Your task to perform on an android device: allow cookies in the chrome app Image 0: 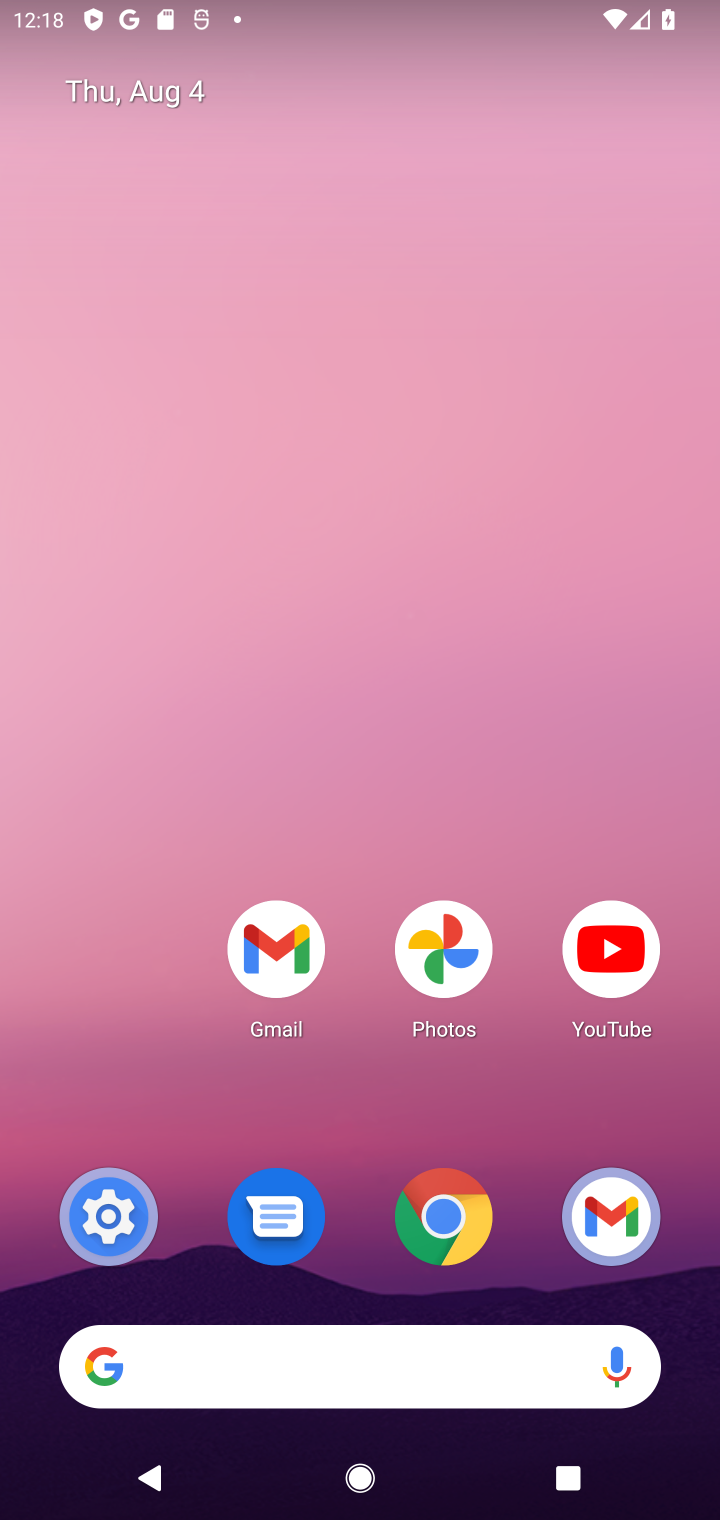
Step 0: drag from (81, 584) to (85, 345)
Your task to perform on an android device: allow cookies in the chrome app Image 1: 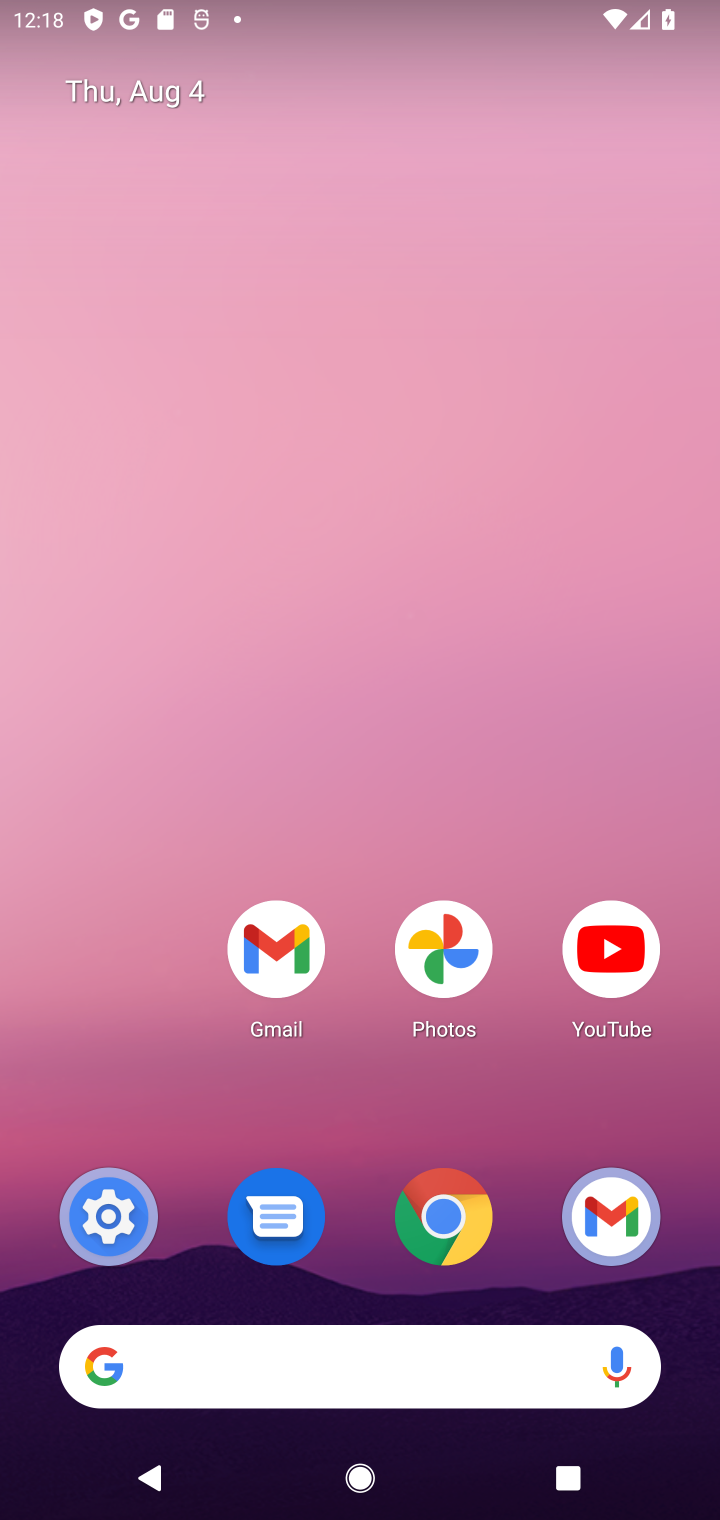
Step 1: click (434, 1205)
Your task to perform on an android device: allow cookies in the chrome app Image 2: 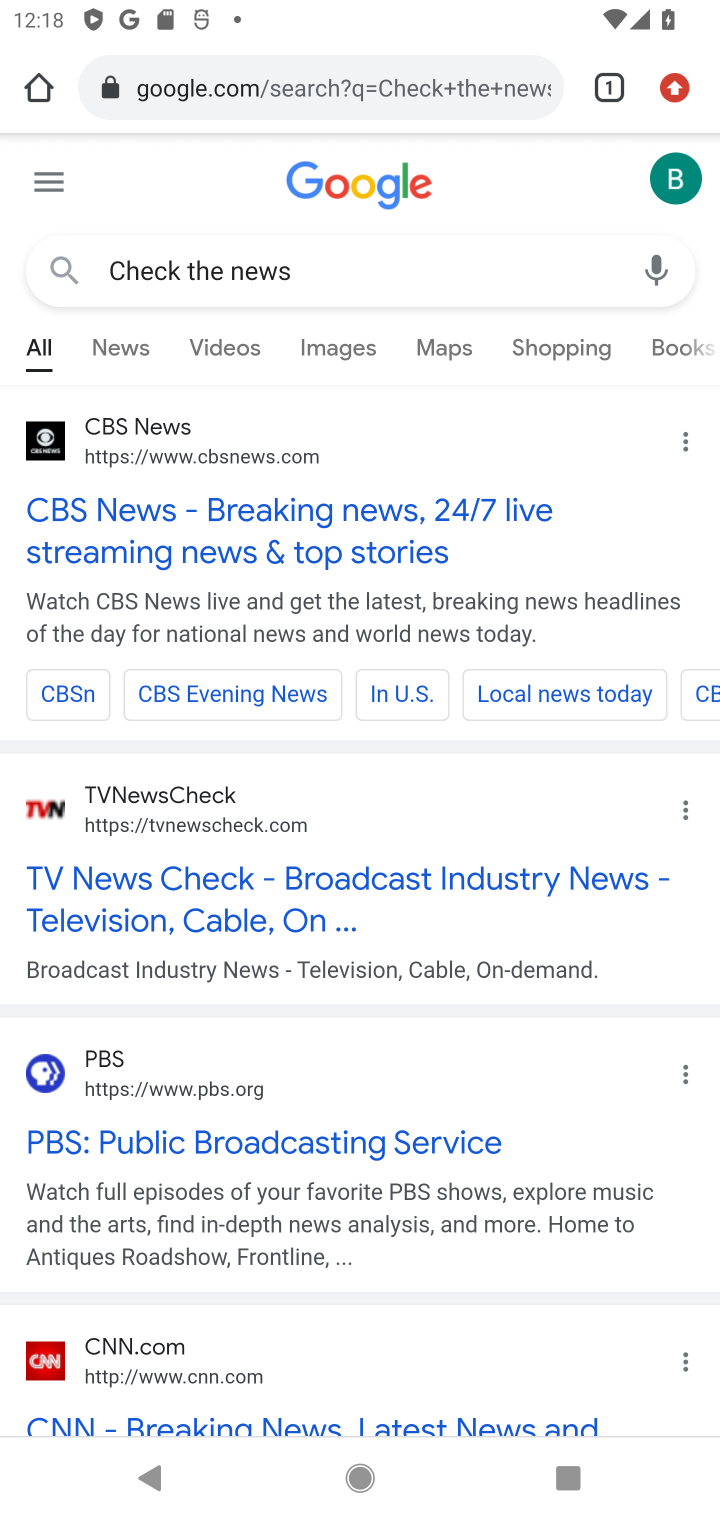
Step 2: click (676, 79)
Your task to perform on an android device: allow cookies in the chrome app Image 3: 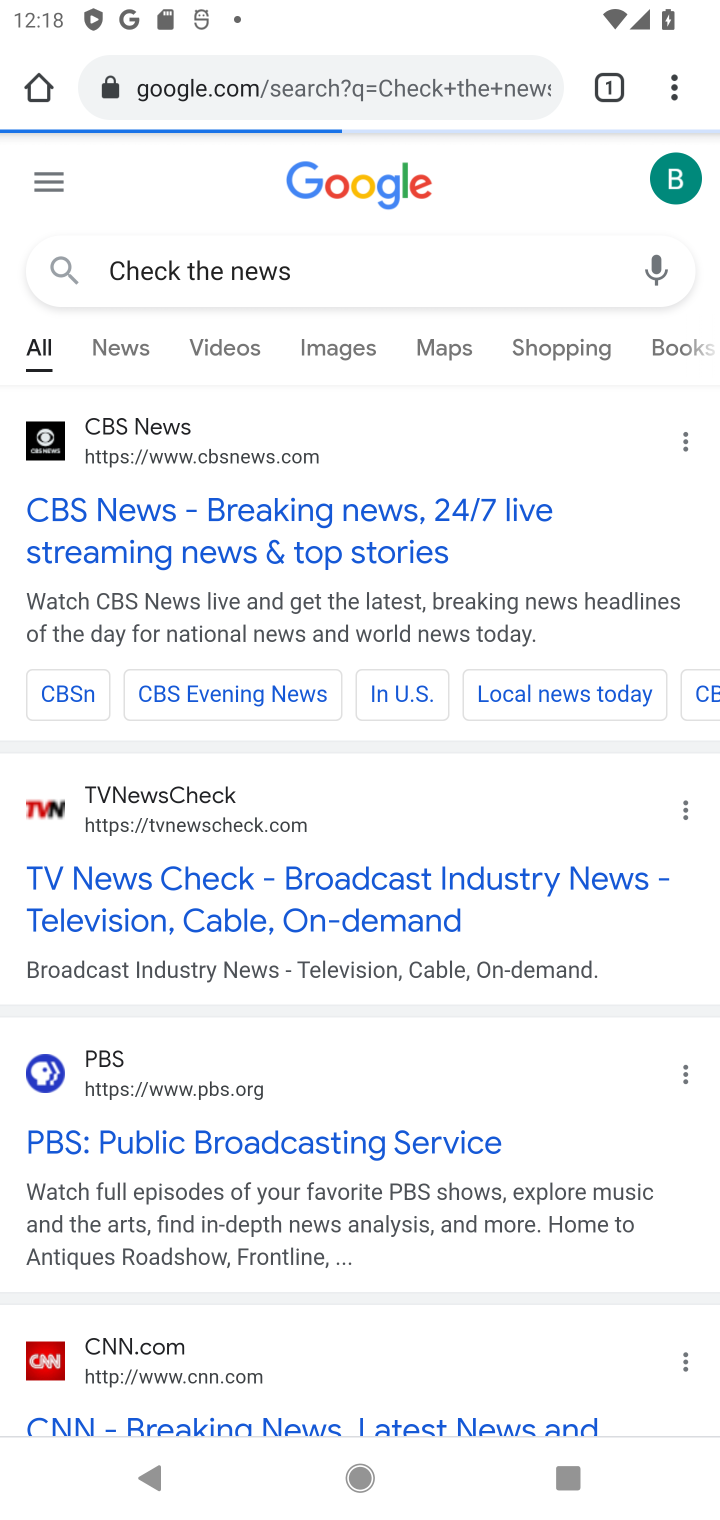
Step 3: click (674, 83)
Your task to perform on an android device: allow cookies in the chrome app Image 4: 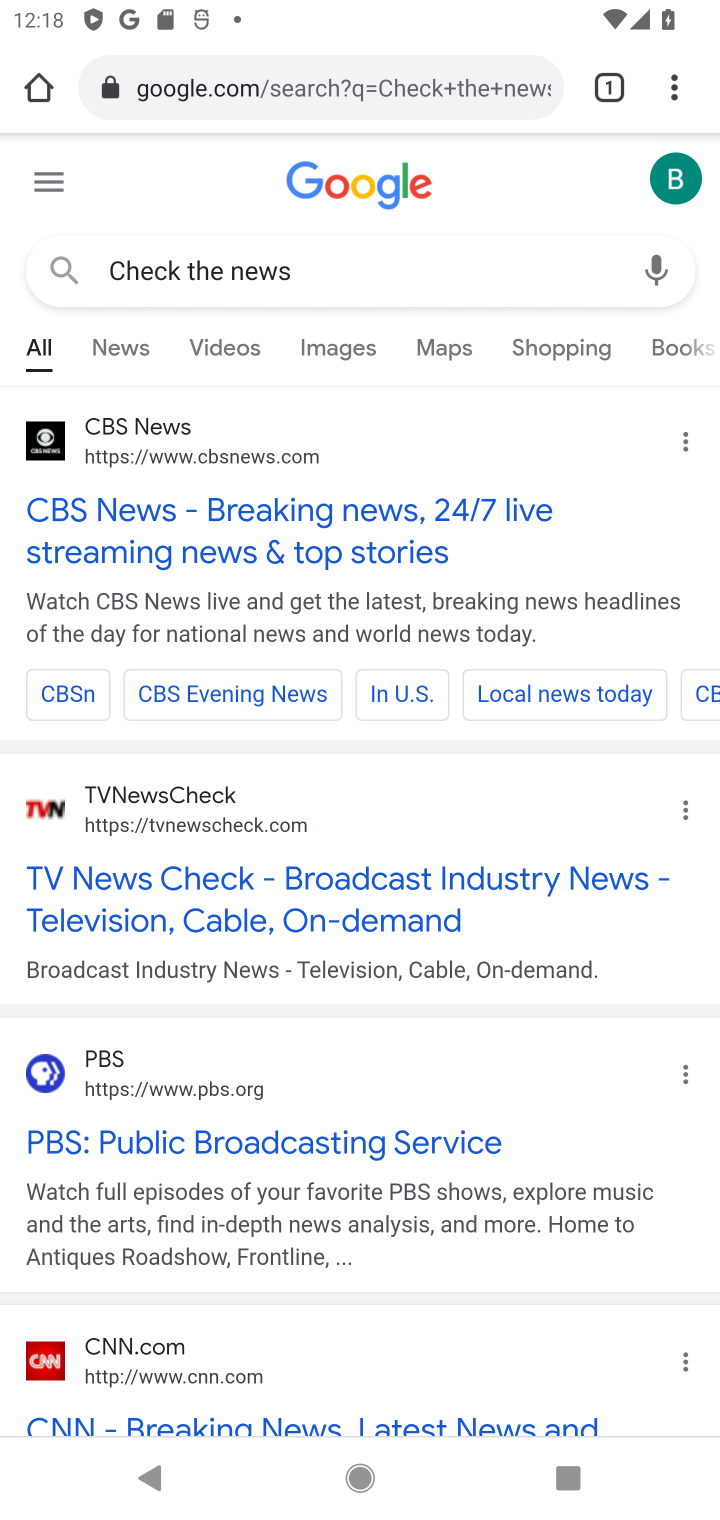
Step 4: click (685, 99)
Your task to perform on an android device: allow cookies in the chrome app Image 5: 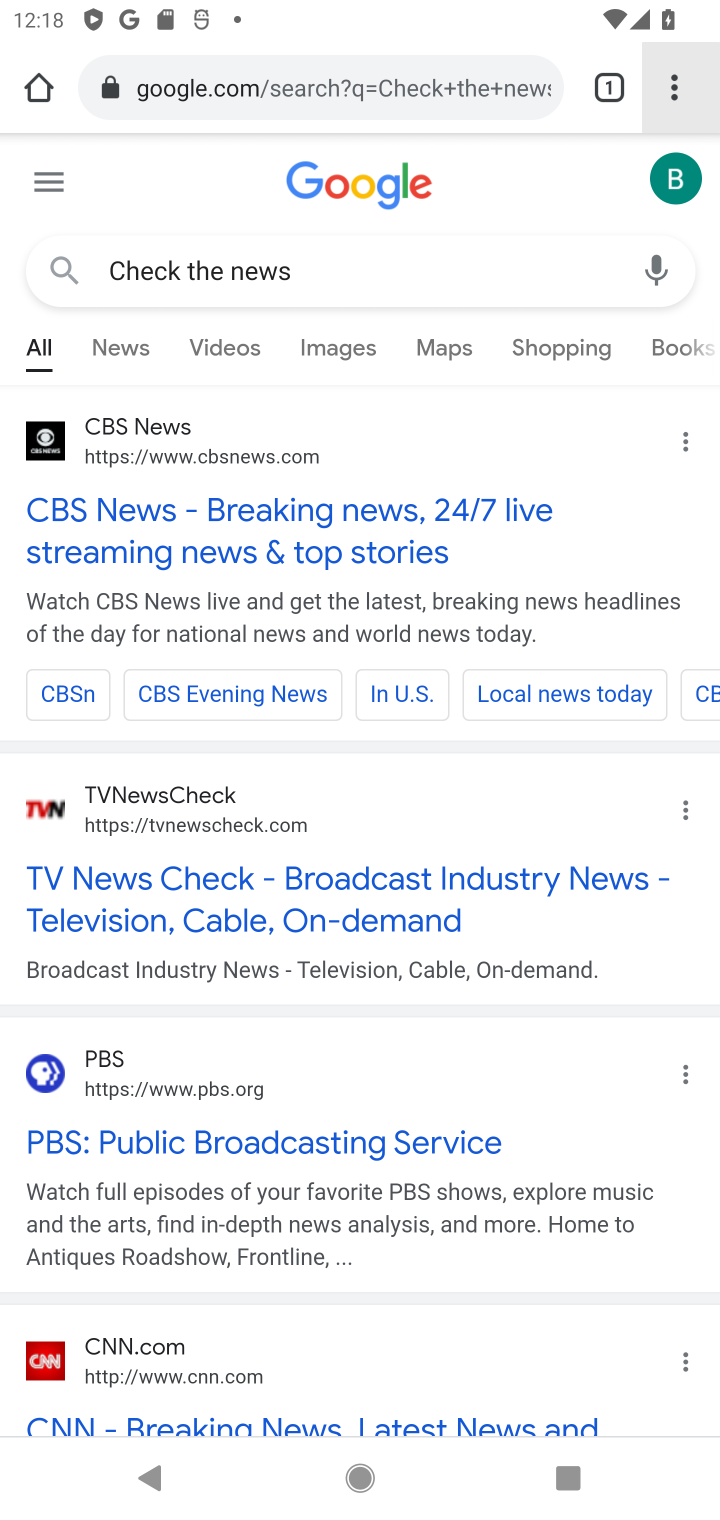
Step 5: click (676, 99)
Your task to perform on an android device: allow cookies in the chrome app Image 6: 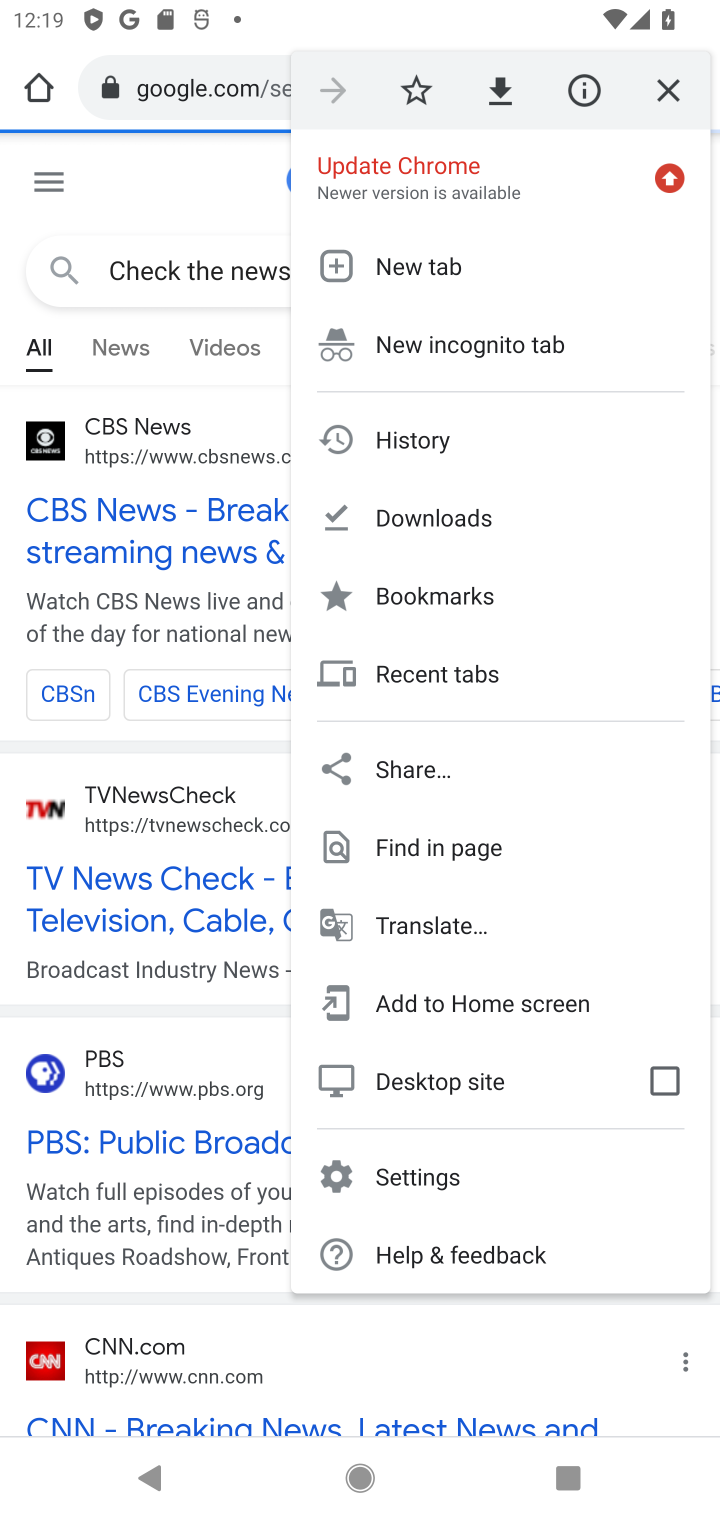
Step 6: click (387, 440)
Your task to perform on an android device: allow cookies in the chrome app Image 7: 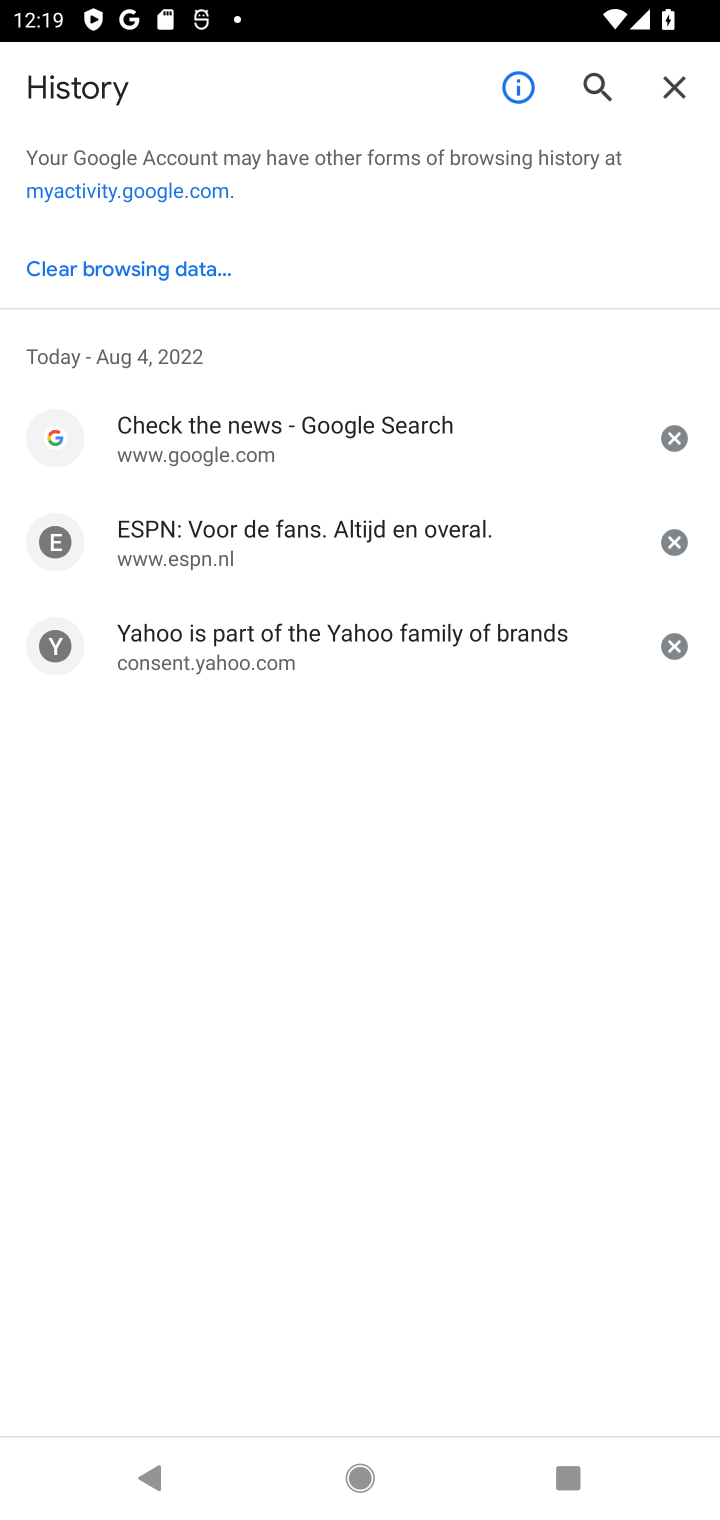
Step 7: click (113, 272)
Your task to perform on an android device: allow cookies in the chrome app Image 8: 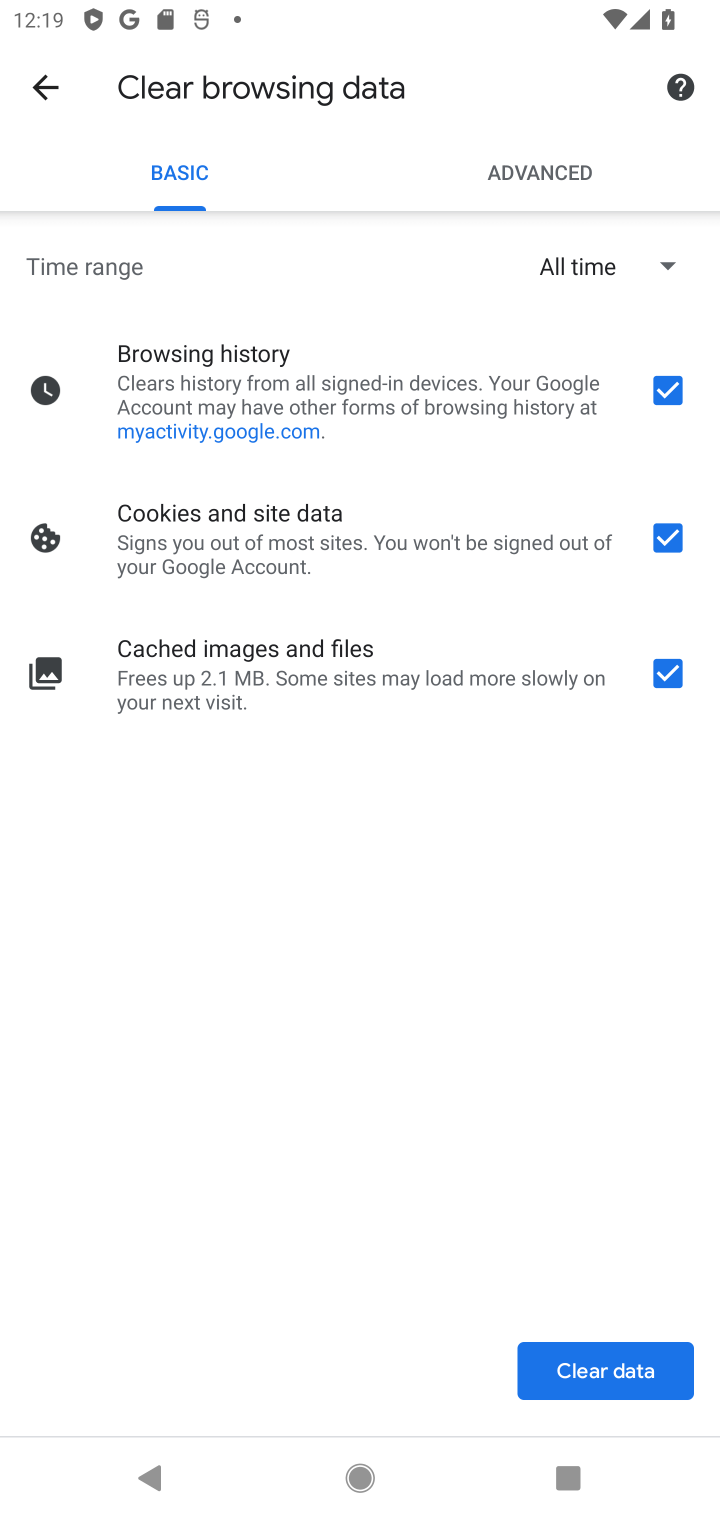
Step 8: click (671, 389)
Your task to perform on an android device: allow cookies in the chrome app Image 9: 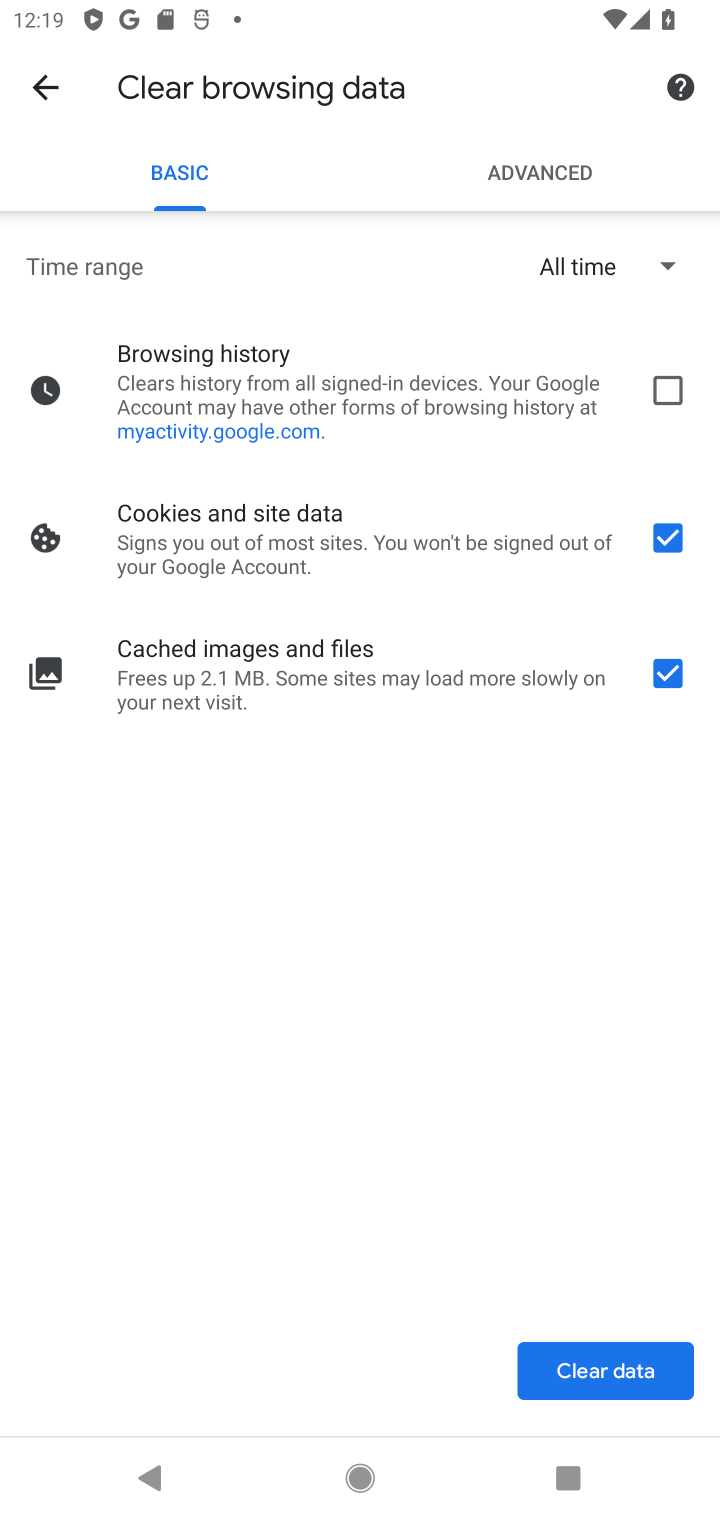
Step 9: click (665, 669)
Your task to perform on an android device: allow cookies in the chrome app Image 10: 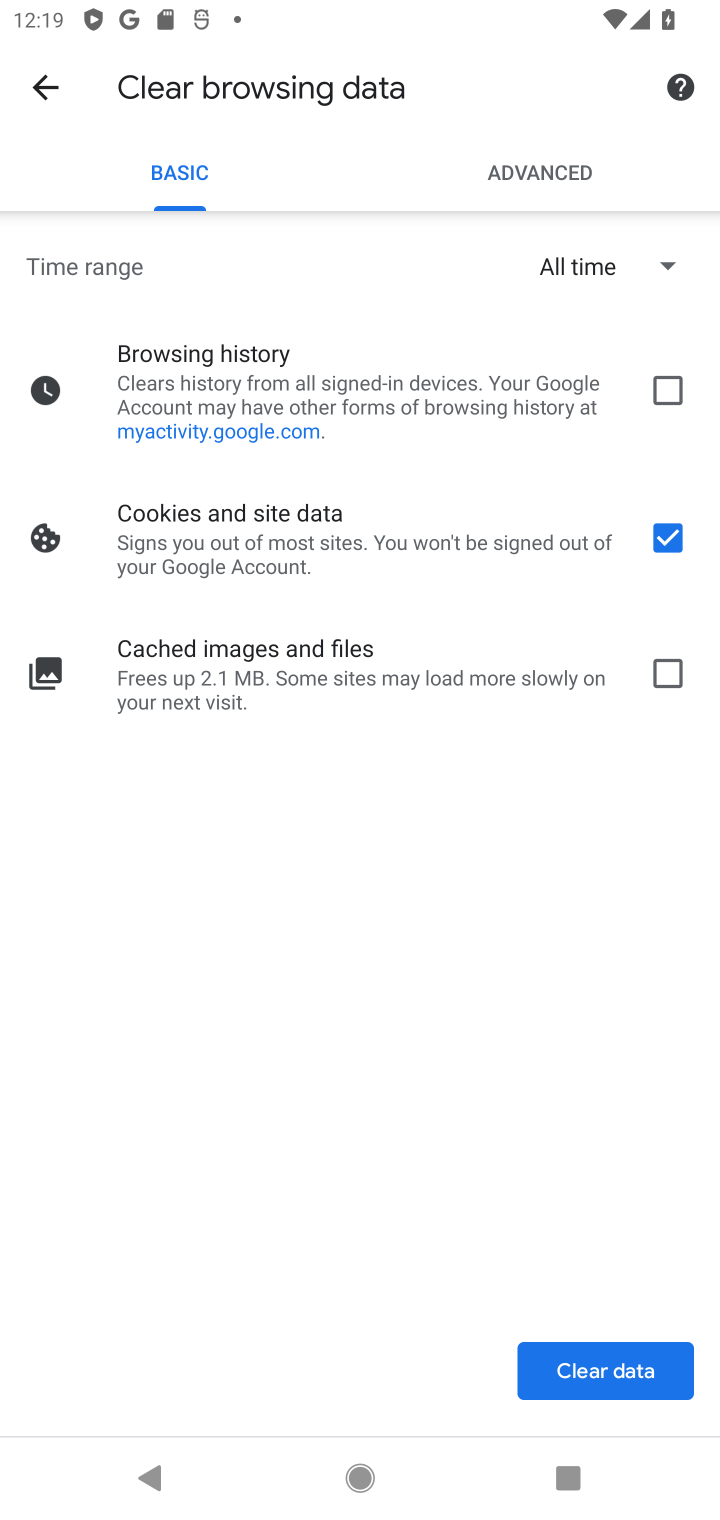
Step 10: click (621, 1368)
Your task to perform on an android device: allow cookies in the chrome app Image 11: 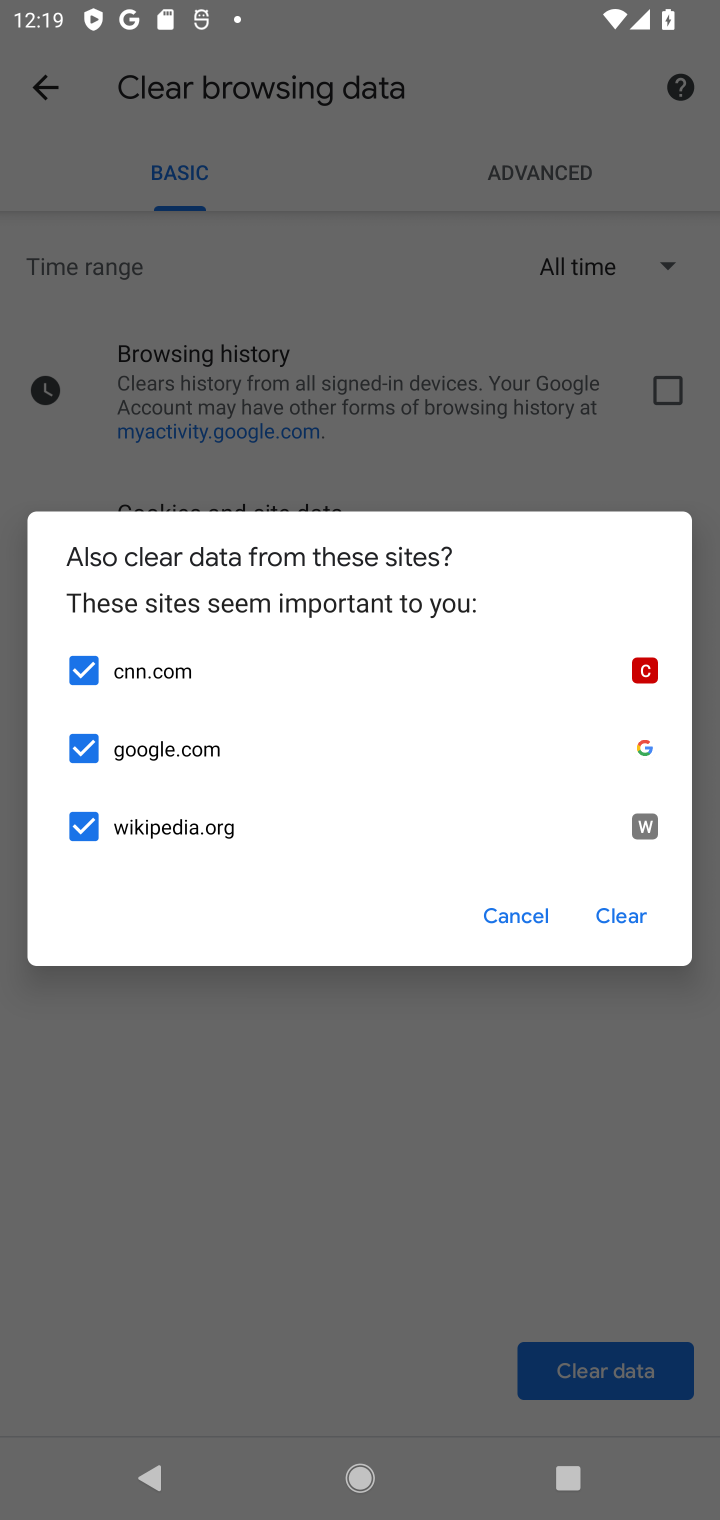
Step 11: click (611, 913)
Your task to perform on an android device: allow cookies in the chrome app Image 12: 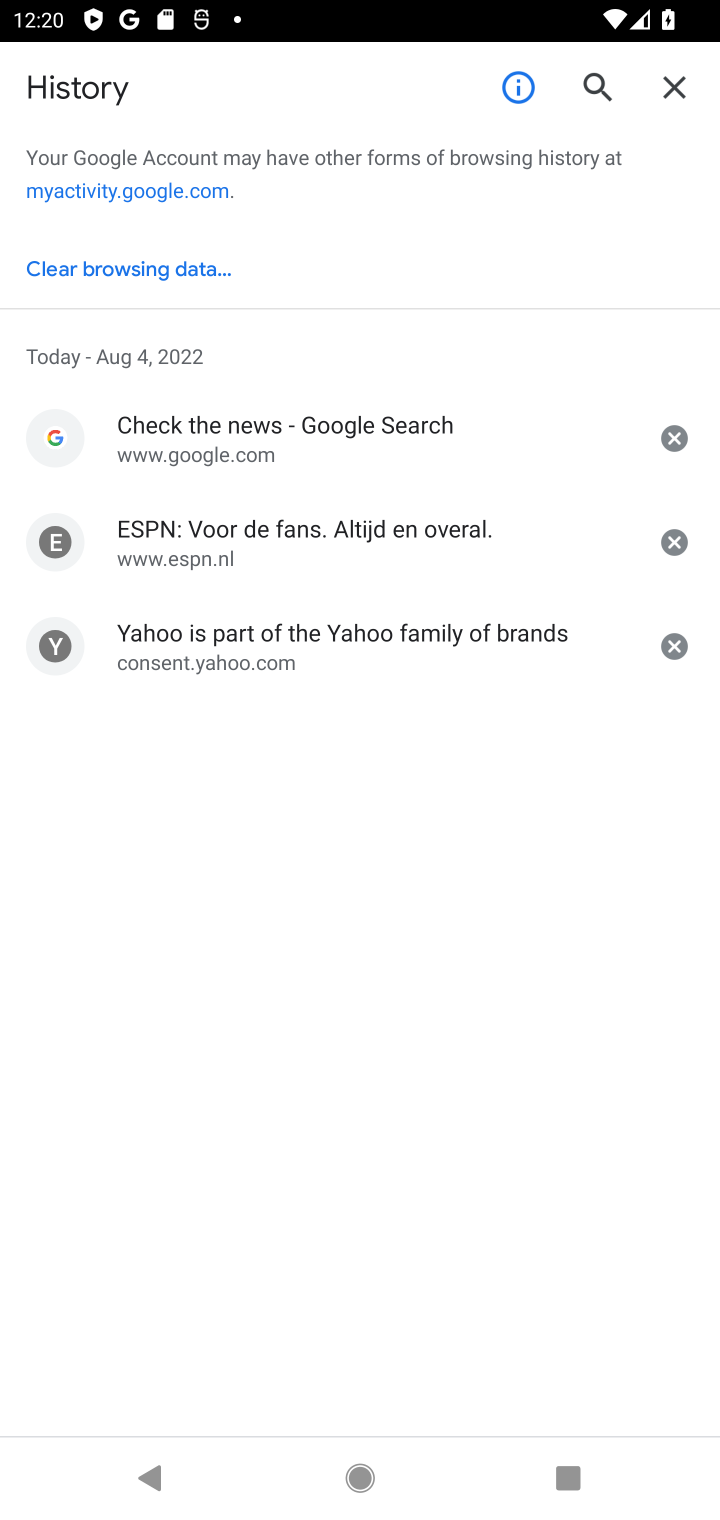
Step 12: task complete